Your task to perform on an android device: turn notification dots off Image 0: 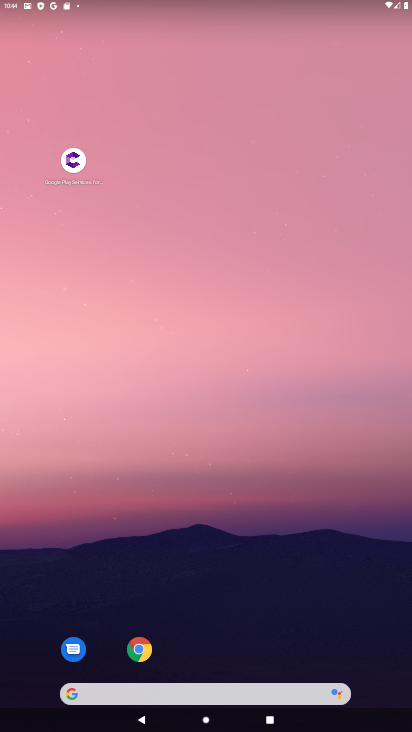
Step 0: drag from (264, 593) to (304, 127)
Your task to perform on an android device: turn notification dots off Image 1: 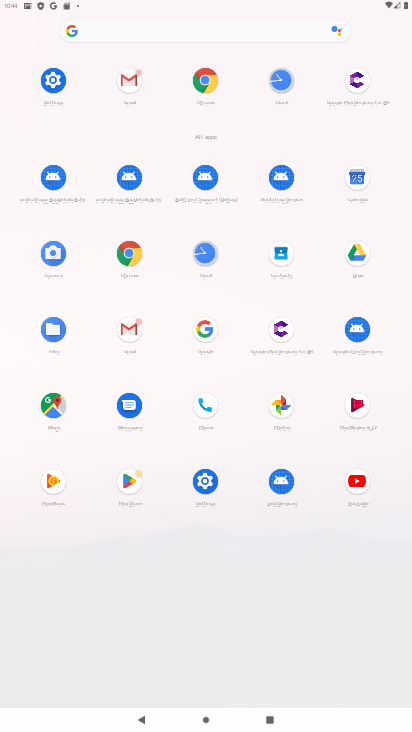
Step 1: click (49, 81)
Your task to perform on an android device: turn notification dots off Image 2: 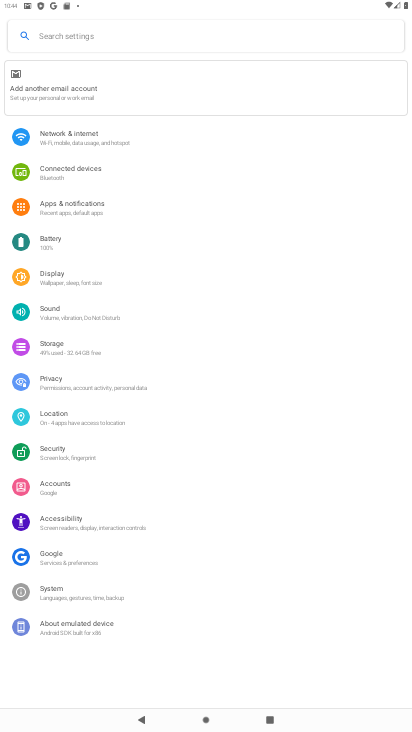
Step 2: click (104, 214)
Your task to perform on an android device: turn notification dots off Image 3: 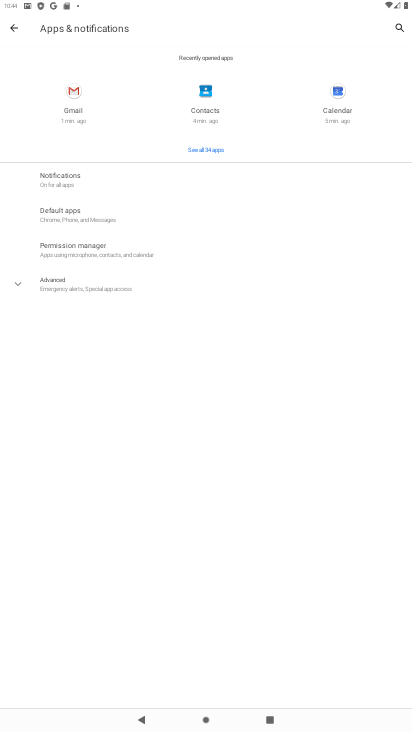
Step 3: click (64, 184)
Your task to perform on an android device: turn notification dots off Image 4: 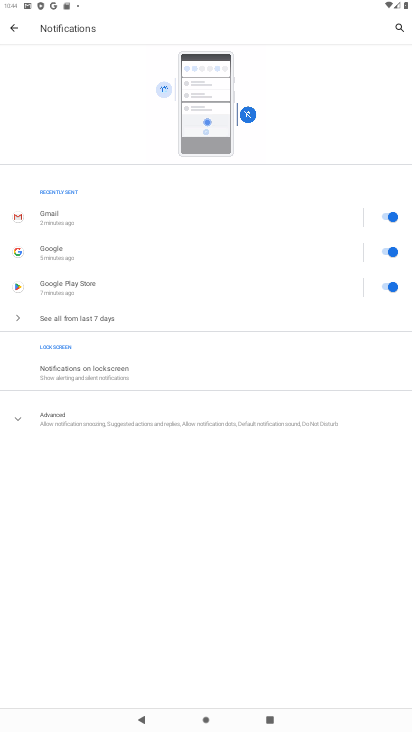
Step 4: click (66, 408)
Your task to perform on an android device: turn notification dots off Image 5: 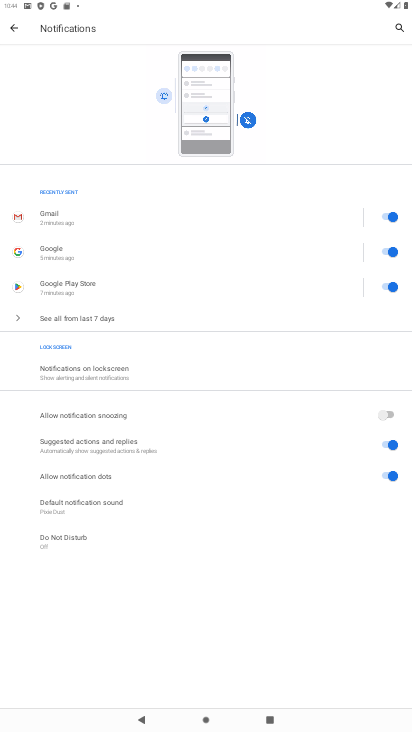
Step 5: click (385, 476)
Your task to perform on an android device: turn notification dots off Image 6: 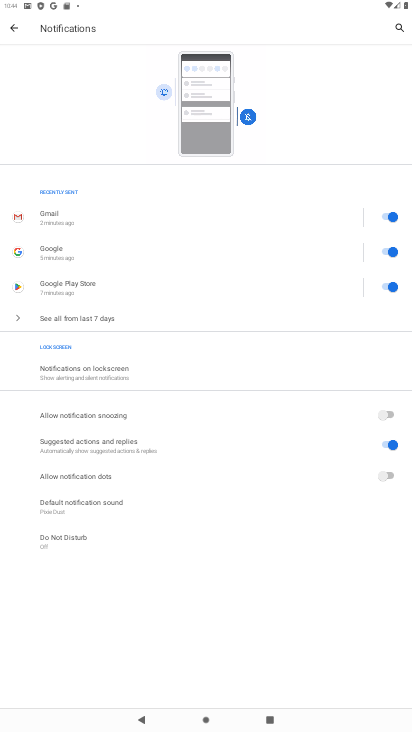
Step 6: task complete